Your task to perform on an android device: Open Maps and search for coffee Image 0: 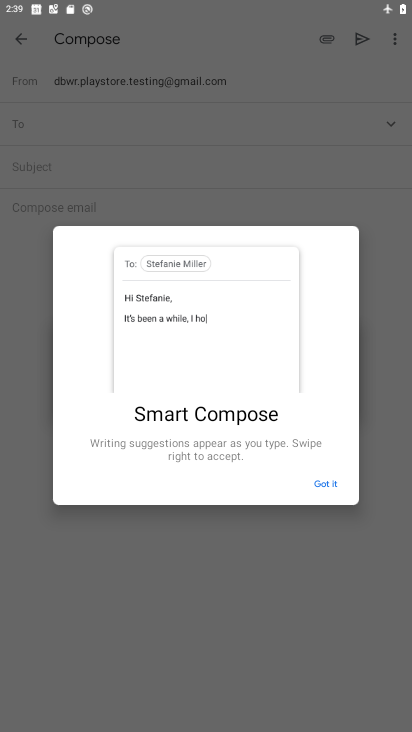
Step 0: press home button
Your task to perform on an android device: Open Maps and search for coffee Image 1: 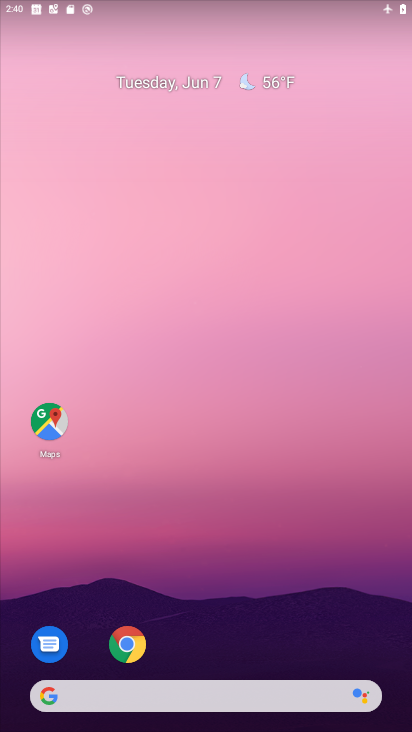
Step 1: click (46, 420)
Your task to perform on an android device: Open Maps and search for coffee Image 2: 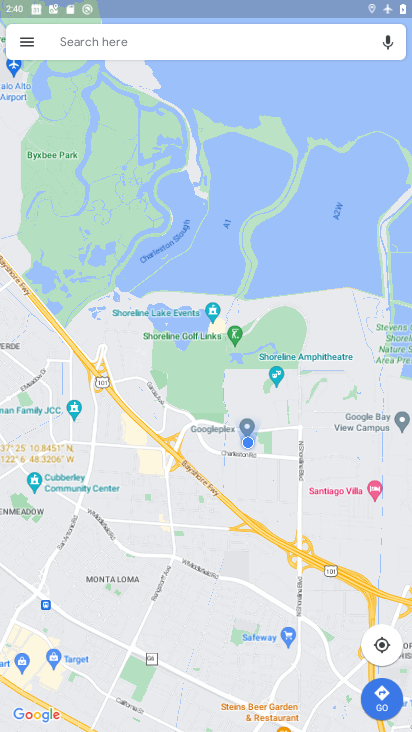
Step 2: click (118, 33)
Your task to perform on an android device: Open Maps and search for coffee Image 3: 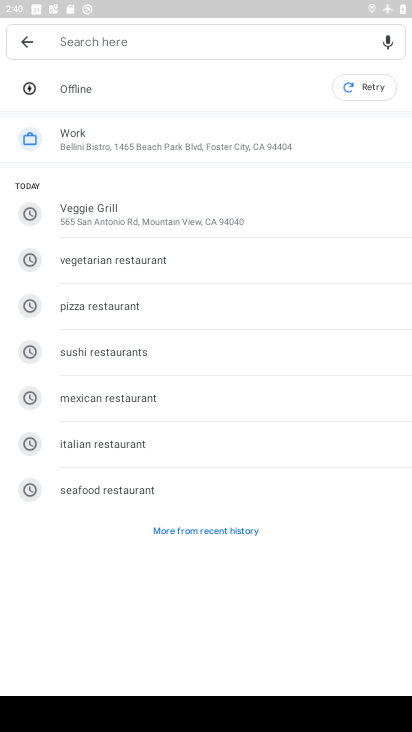
Step 3: type "coffee"
Your task to perform on an android device: Open Maps and search for coffee Image 4: 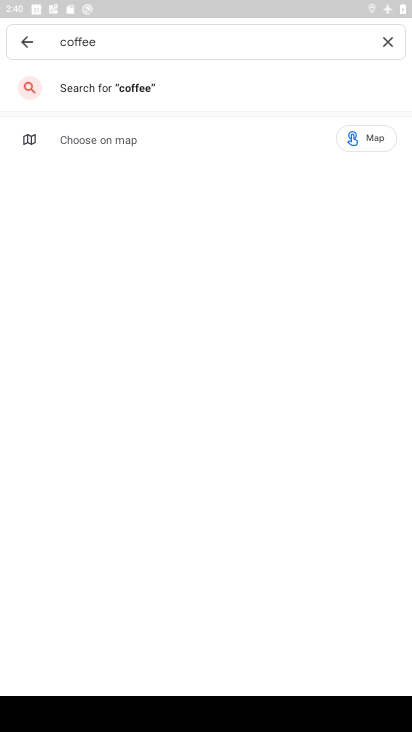
Step 4: task complete